Your task to perform on an android device: turn off picture-in-picture Image 0: 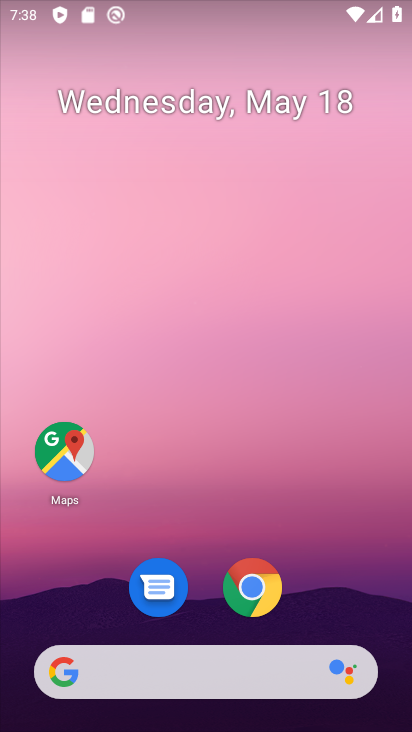
Step 0: drag from (243, 621) to (323, 184)
Your task to perform on an android device: turn off picture-in-picture Image 1: 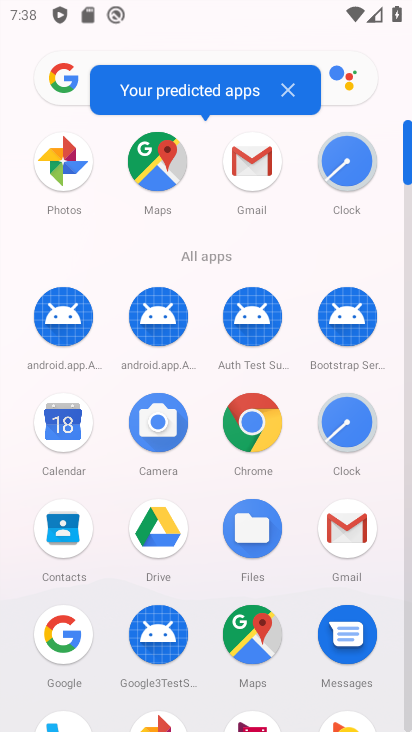
Step 1: drag from (216, 601) to (289, 133)
Your task to perform on an android device: turn off picture-in-picture Image 2: 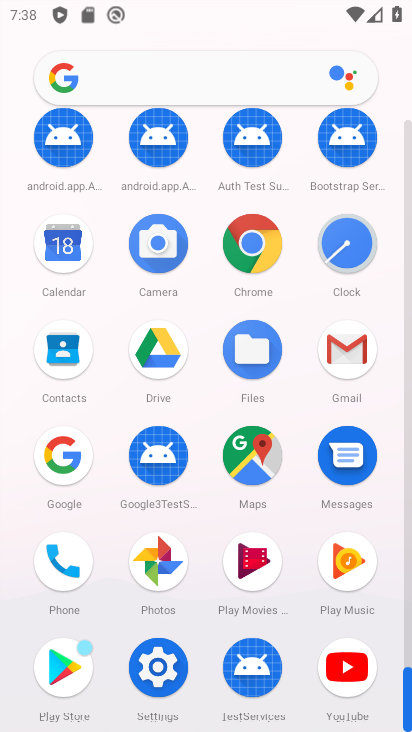
Step 2: drag from (240, 502) to (287, 119)
Your task to perform on an android device: turn off picture-in-picture Image 3: 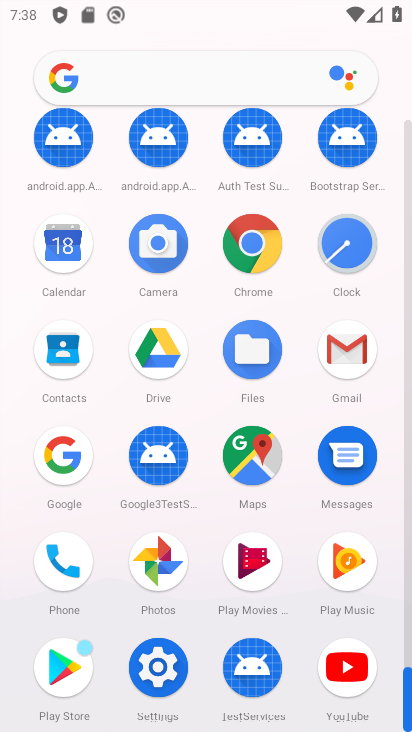
Step 3: click (161, 682)
Your task to perform on an android device: turn off picture-in-picture Image 4: 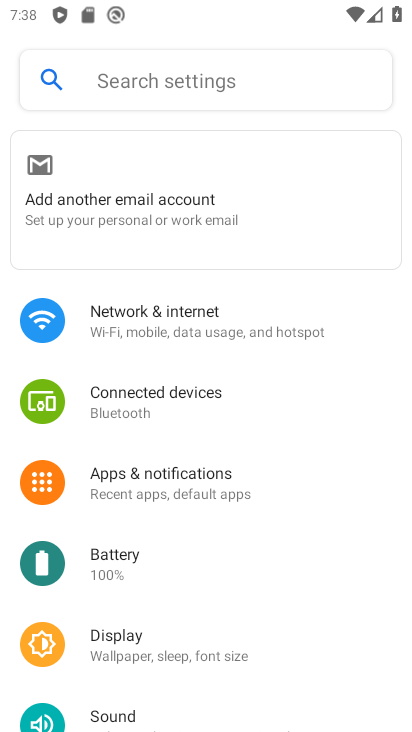
Step 4: click (124, 500)
Your task to perform on an android device: turn off picture-in-picture Image 5: 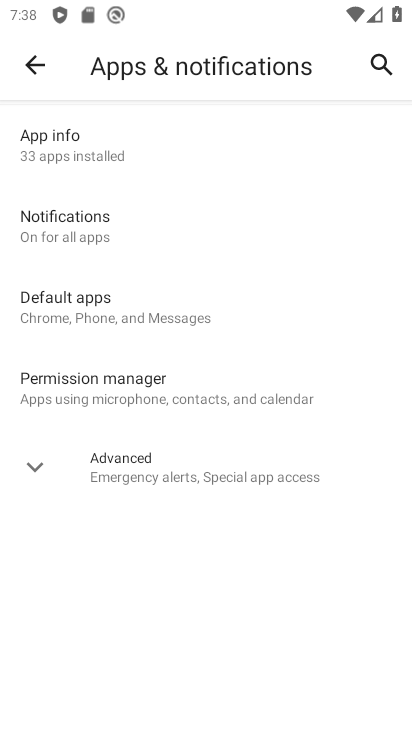
Step 5: click (143, 491)
Your task to perform on an android device: turn off picture-in-picture Image 6: 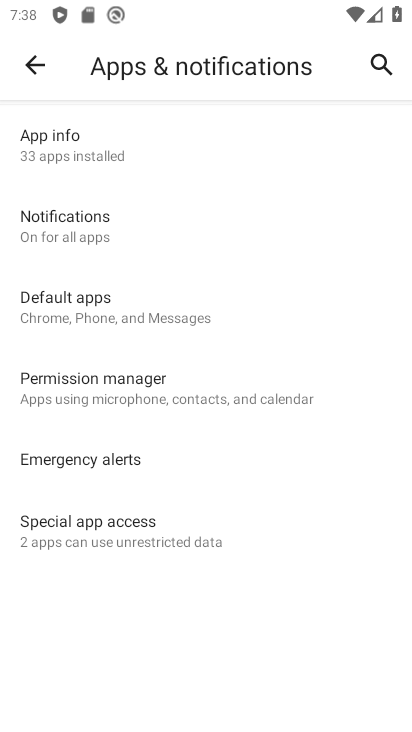
Step 6: click (154, 538)
Your task to perform on an android device: turn off picture-in-picture Image 7: 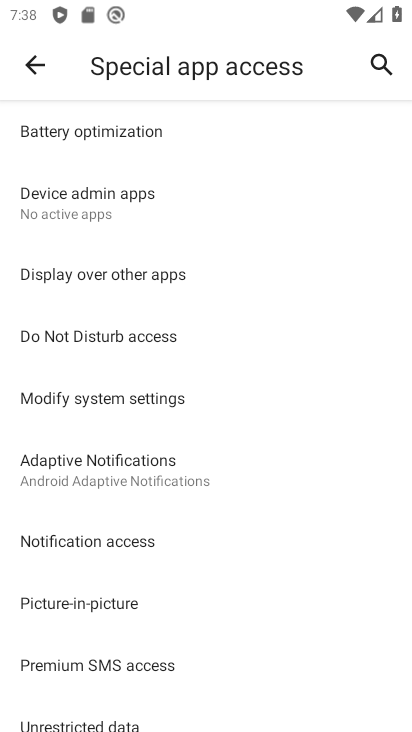
Step 7: click (109, 601)
Your task to perform on an android device: turn off picture-in-picture Image 8: 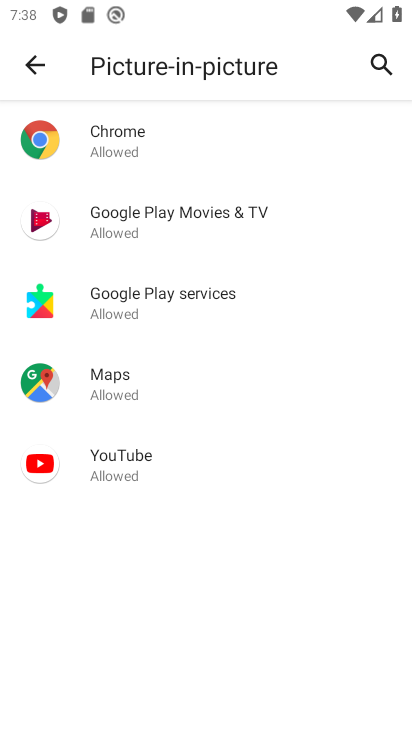
Step 8: click (272, 144)
Your task to perform on an android device: turn off picture-in-picture Image 9: 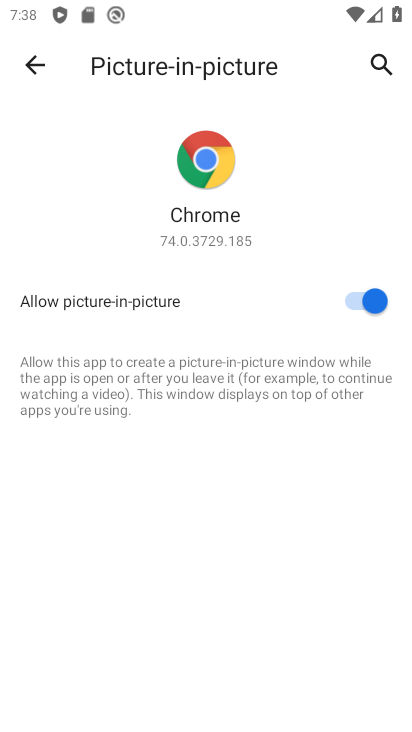
Step 9: click (354, 305)
Your task to perform on an android device: turn off picture-in-picture Image 10: 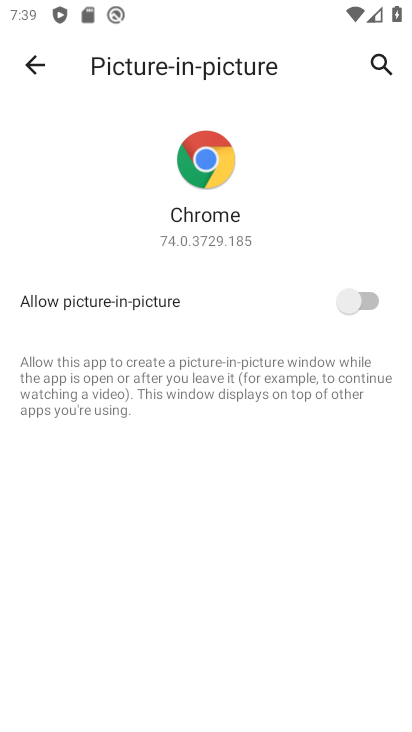
Step 10: task complete